Your task to perform on an android device: turn on data saver in the chrome app Image 0: 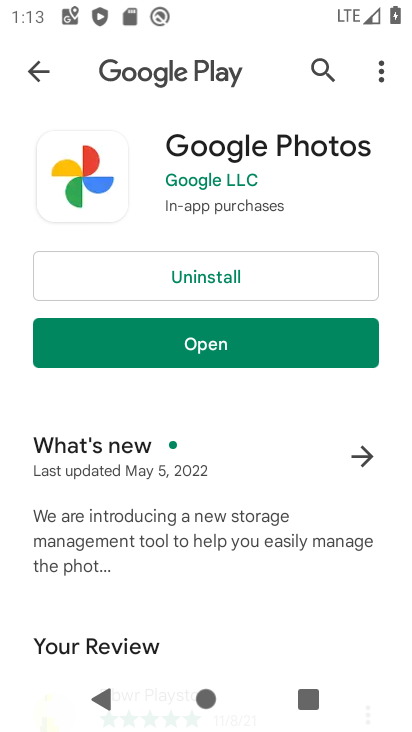
Step 0: press home button
Your task to perform on an android device: turn on data saver in the chrome app Image 1: 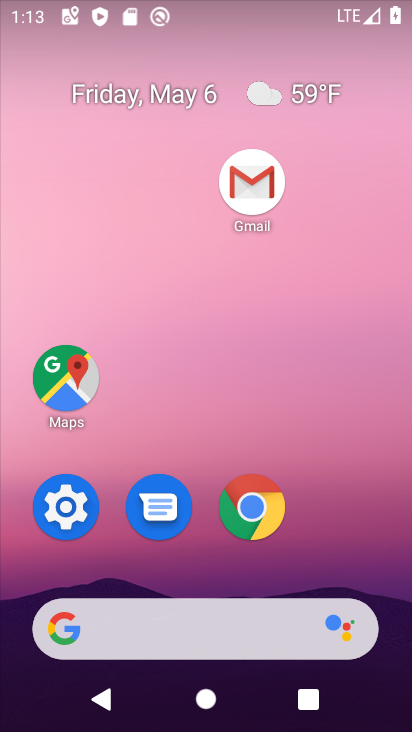
Step 1: click (246, 513)
Your task to perform on an android device: turn on data saver in the chrome app Image 2: 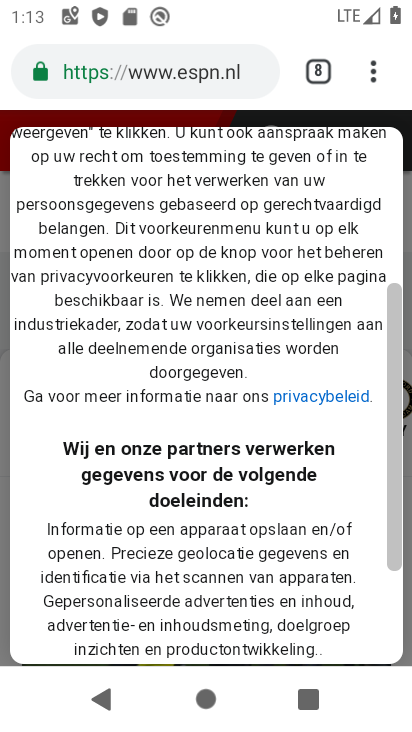
Step 2: click (369, 72)
Your task to perform on an android device: turn on data saver in the chrome app Image 3: 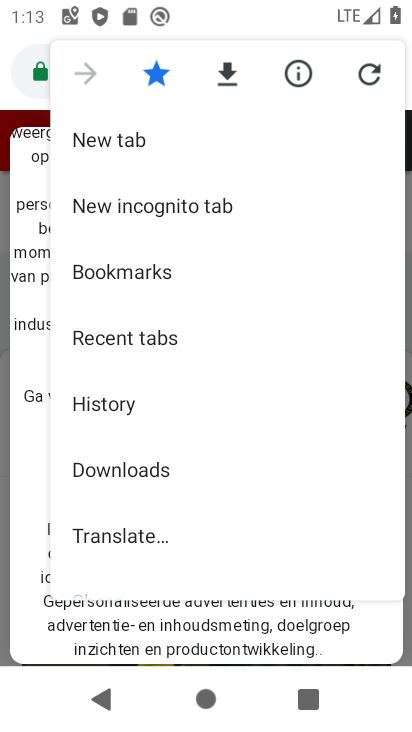
Step 3: drag from (208, 472) to (142, 200)
Your task to perform on an android device: turn on data saver in the chrome app Image 4: 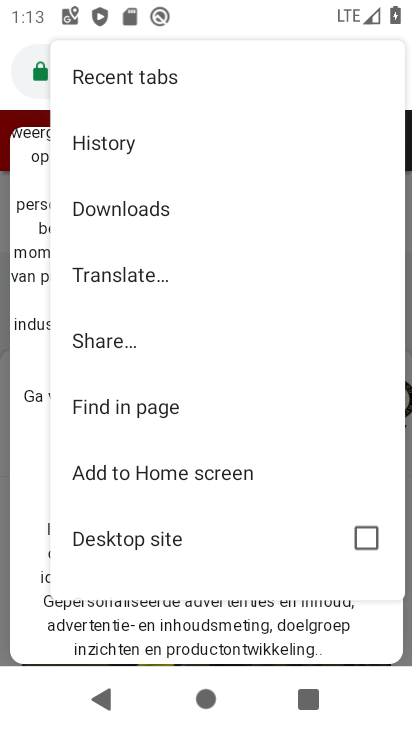
Step 4: drag from (170, 449) to (133, 164)
Your task to perform on an android device: turn on data saver in the chrome app Image 5: 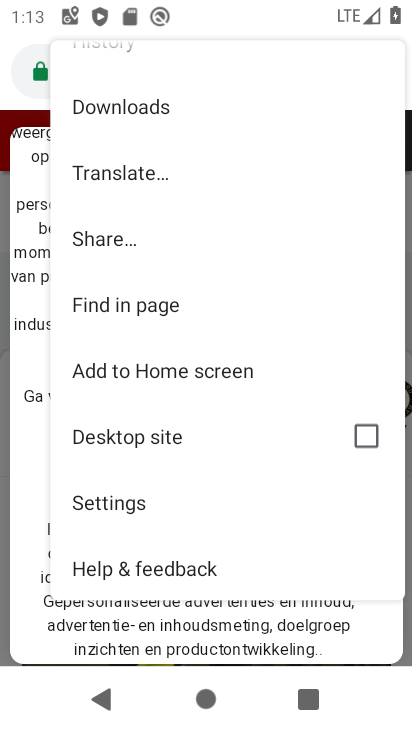
Step 5: click (115, 499)
Your task to perform on an android device: turn on data saver in the chrome app Image 6: 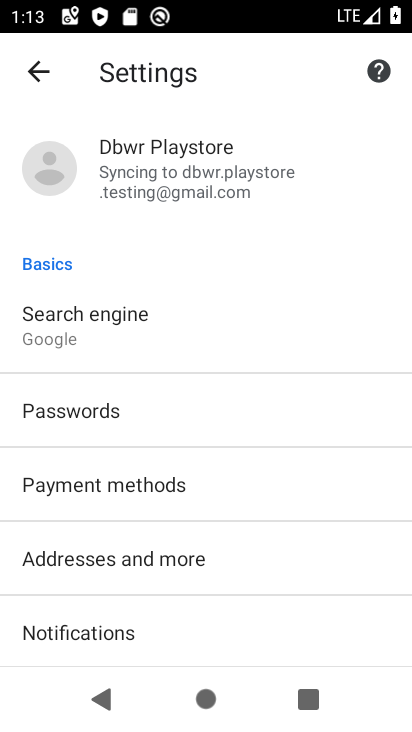
Step 6: drag from (218, 492) to (176, 195)
Your task to perform on an android device: turn on data saver in the chrome app Image 7: 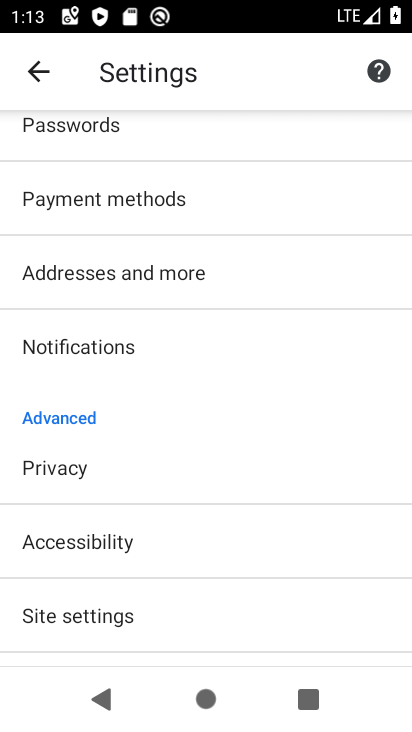
Step 7: drag from (192, 495) to (196, 216)
Your task to perform on an android device: turn on data saver in the chrome app Image 8: 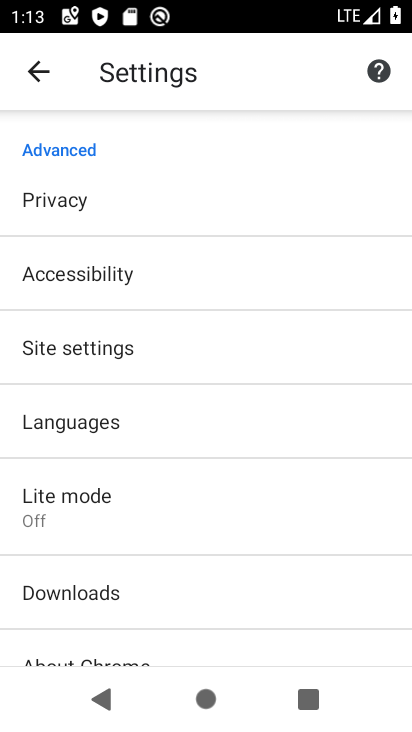
Step 8: click (78, 496)
Your task to perform on an android device: turn on data saver in the chrome app Image 9: 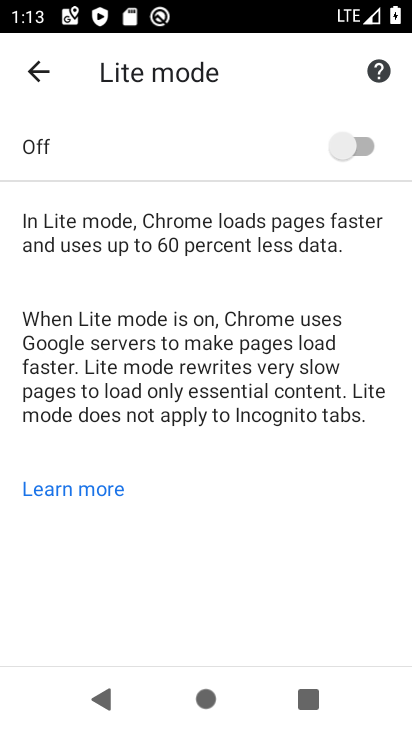
Step 9: click (344, 154)
Your task to perform on an android device: turn on data saver in the chrome app Image 10: 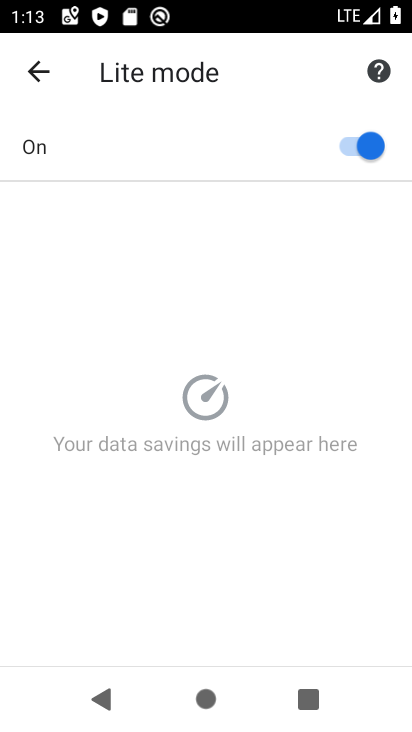
Step 10: task complete